Your task to perform on an android device: Go to eBay Image 0: 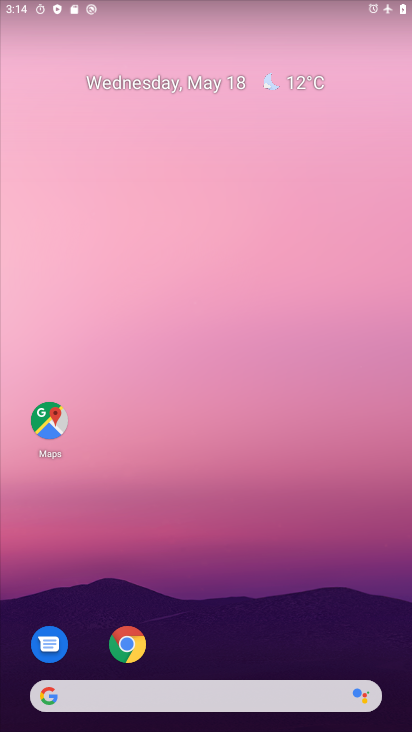
Step 0: click (134, 627)
Your task to perform on an android device: Go to eBay Image 1: 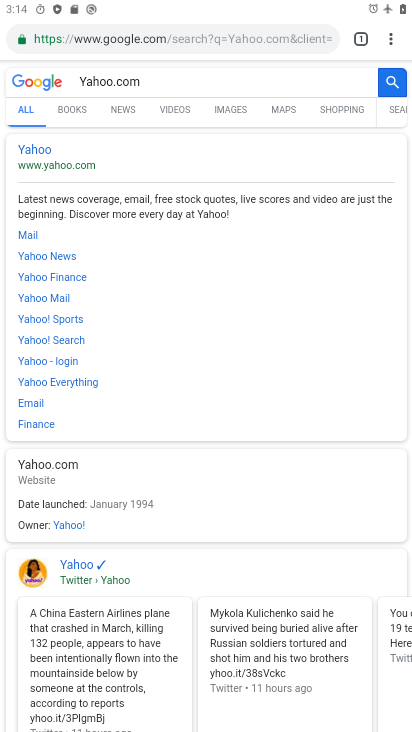
Step 1: click (332, 40)
Your task to perform on an android device: Go to eBay Image 2: 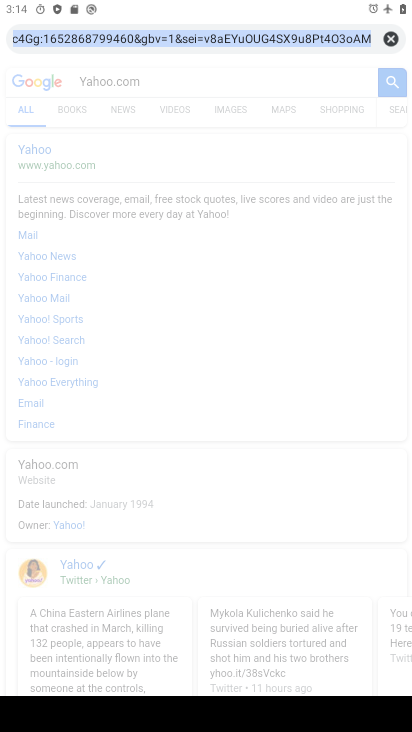
Step 2: click (333, 36)
Your task to perform on an android device: Go to eBay Image 3: 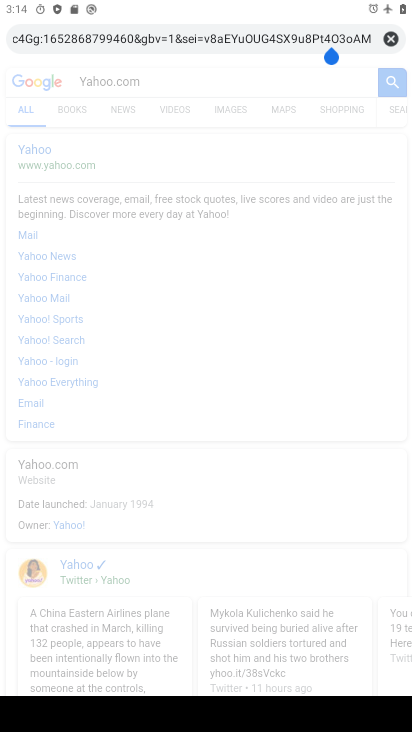
Step 3: click (389, 37)
Your task to perform on an android device: Go to eBay Image 4: 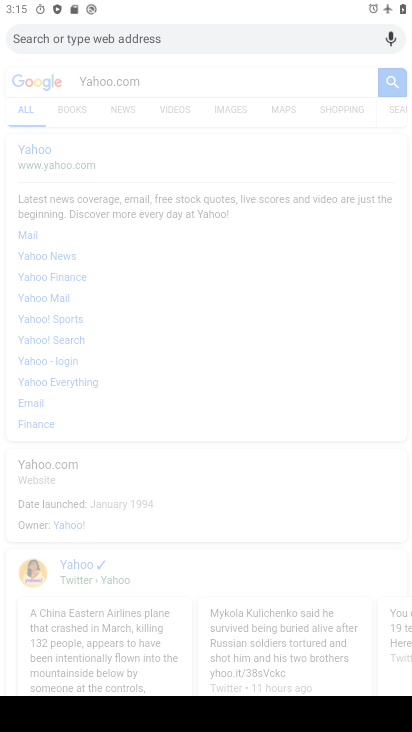
Step 4: type "eBay"
Your task to perform on an android device: Go to eBay Image 5: 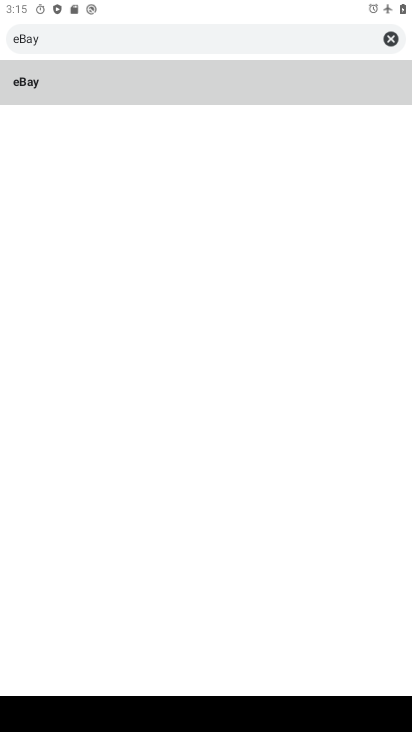
Step 5: task complete